Your task to perform on an android device: Go to battery settings Image 0: 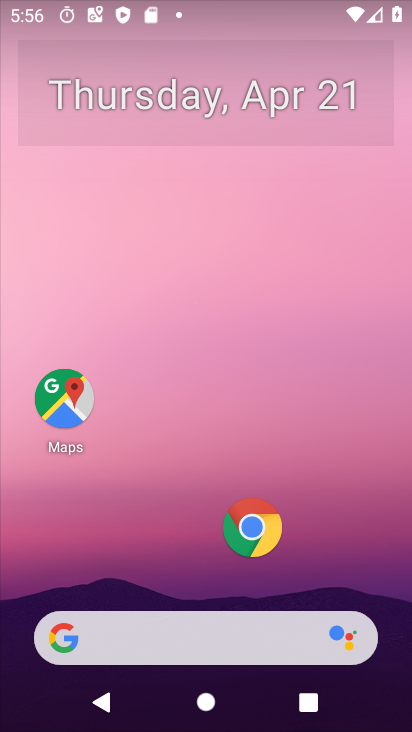
Step 0: drag from (186, 471) to (337, 25)
Your task to perform on an android device: Go to battery settings Image 1: 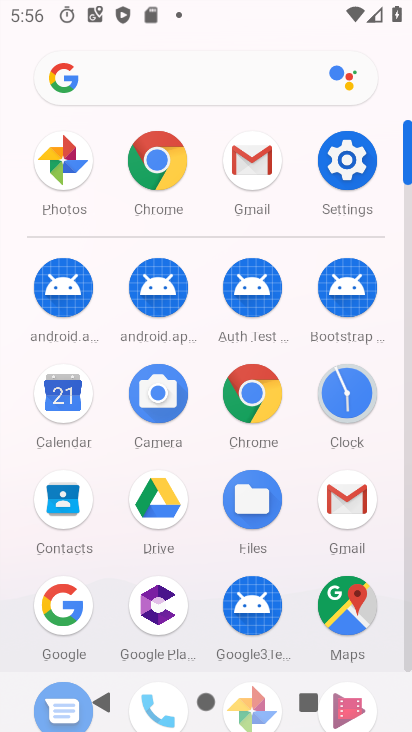
Step 1: click (351, 173)
Your task to perform on an android device: Go to battery settings Image 2: 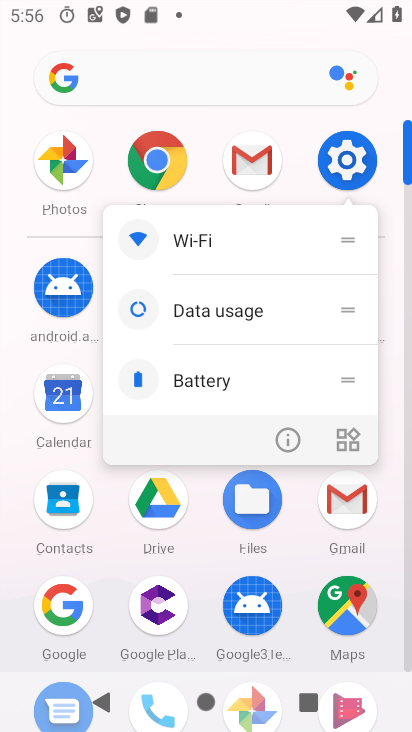
Step 2: click (355, 150)
Your task to perform on an android device: Go to battery settings Image 3: 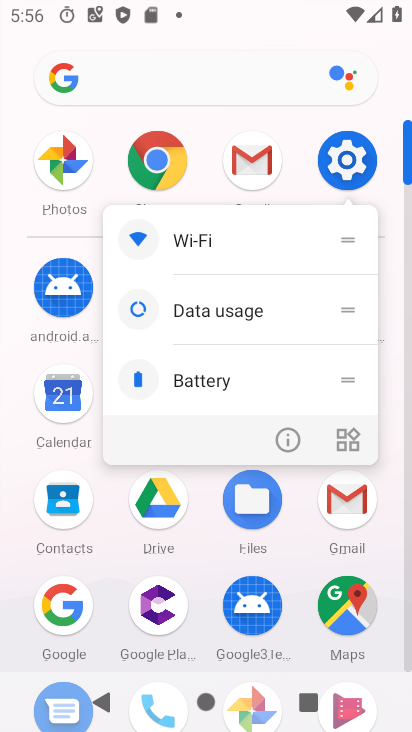
Step 3: click (359, 146)
Your task to perform on an android device: Go to battery settings Image 4: 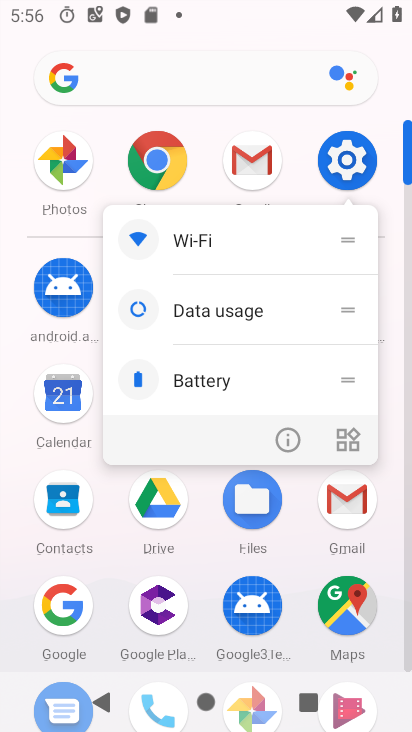
Step 4: click (357, 159)
Your task to perform on an android device: Go to battery settings Image 5: 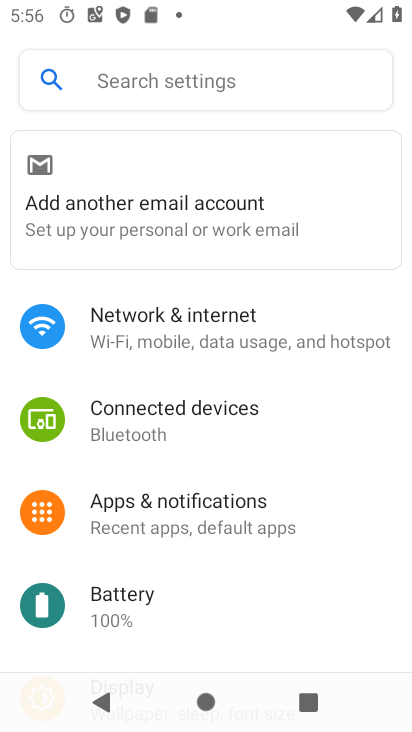
Step 5: click (135, 604)
Your task to perform on an android device: Go to battery settings Image 6: 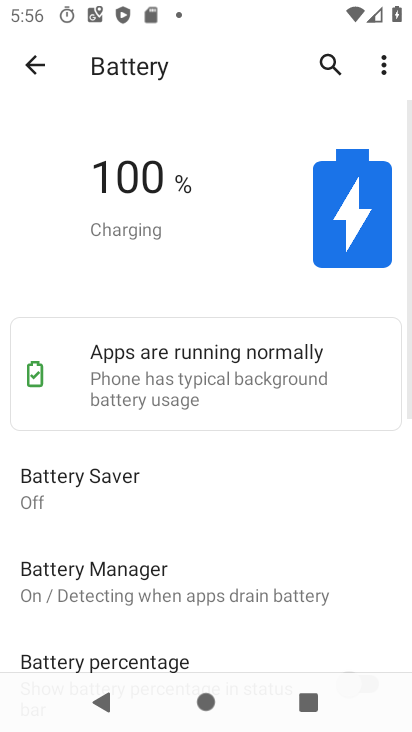
Step 6: task complete